Your task to perform on an android device: When is my next appointment? Image 0: 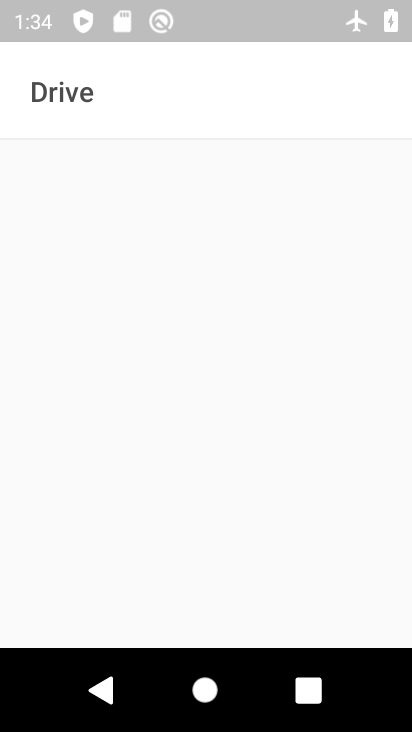
Step 0: press home button
Your task to perform on an android device: When is my next appointment? Image 1: 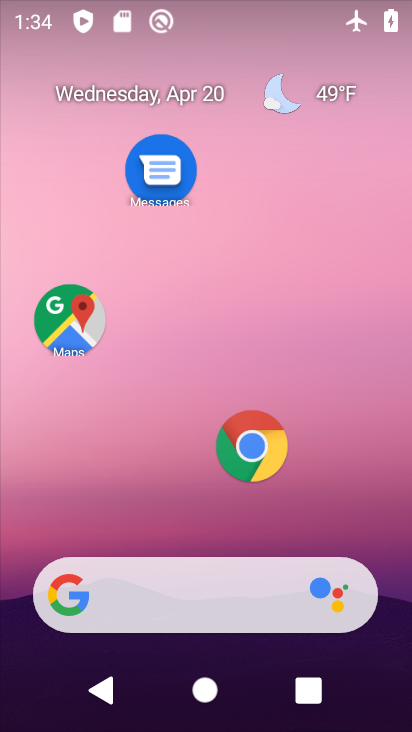
Step 1: drag from (185, 511) to (258, 0)
Your task to perform on an android device: When is my next appointment? Image 2: 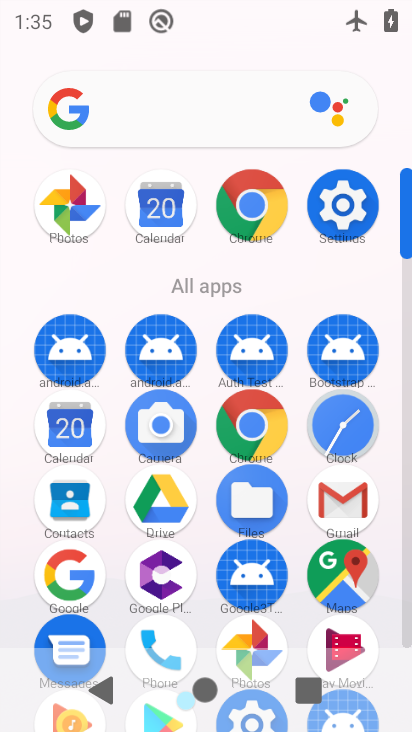
Step 2: click (65, 413)
Your task to perform on an android device: When is my next appointment? Image 3: 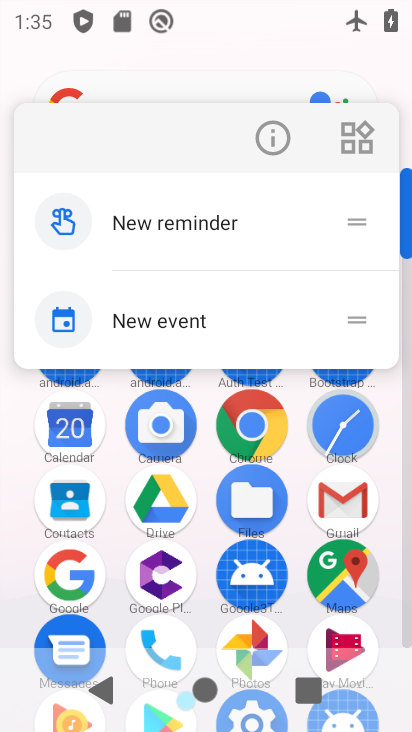
Step 3: click (72, 428)
Your task to perform on an android device: When is my next appointment? Image 4: 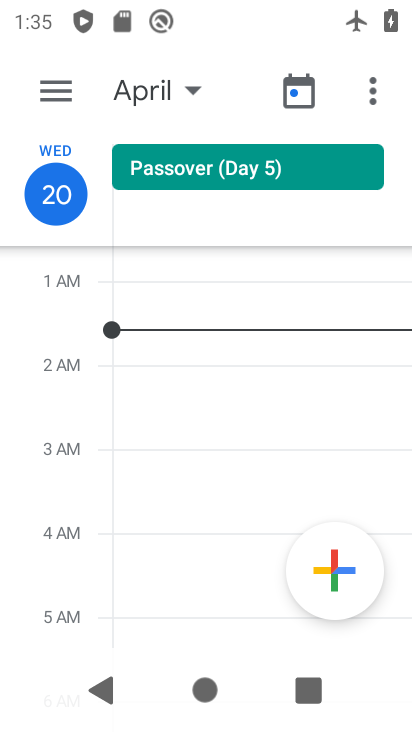
Step 4: click (88, 186)
Your task to perform on an android device: When is my next appointment? Image 5: 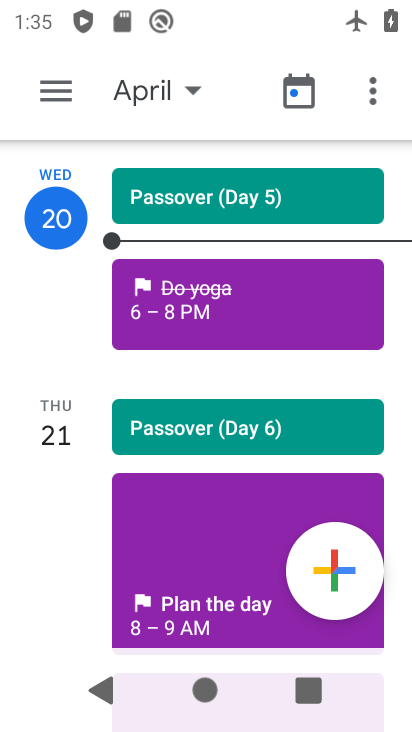
Step 5: task complete